Your task to perform on an android device: Open my contact list Image 0: 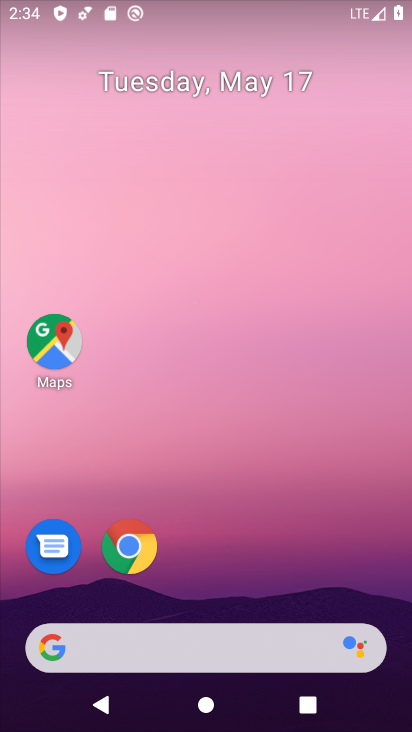
Step 0: press home button
Your task to perform on an android device: Open my contact list Image 1: 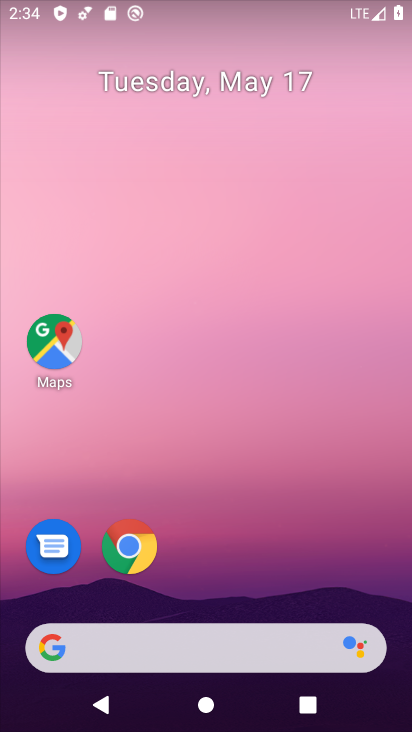
Step 1: drag from (314, 567) to (282, 4)
Your task to perform on an android device: Open my contact list Image 2: 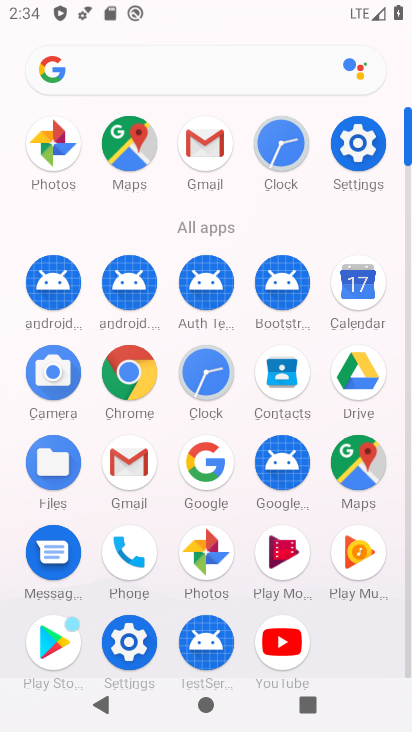
Step 2: click (273, 389)
Your task to perform on an android device: Open my contact list Image 3: 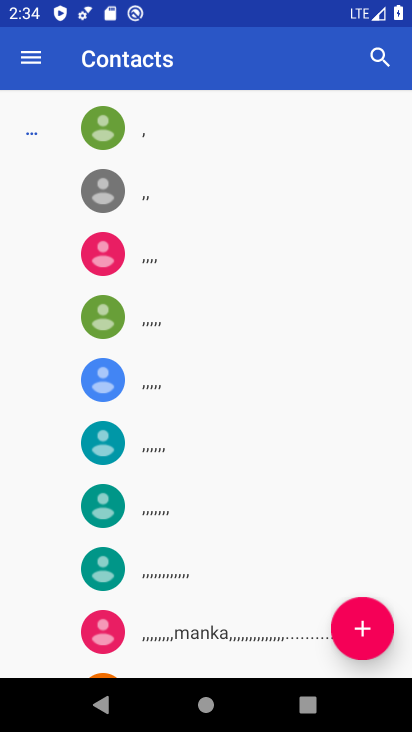
Step 3: task complete